Your task to perform on an android device: Open Yahoo.com Image 0: 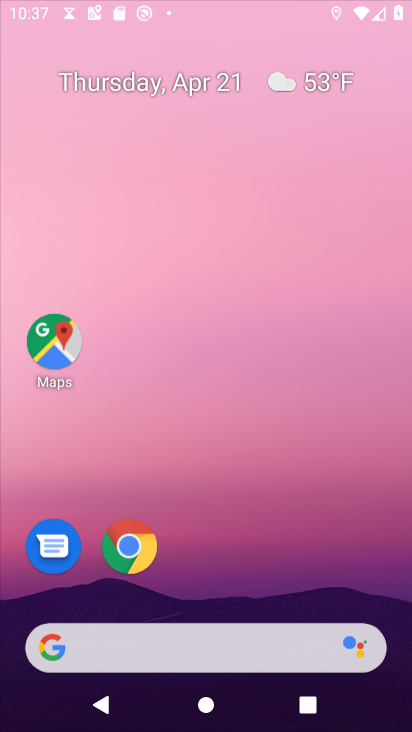
Step 0: drag from (283, 558) to (266, 224)
Your task to perform on an android device: Open Yahoo.com Image 1: 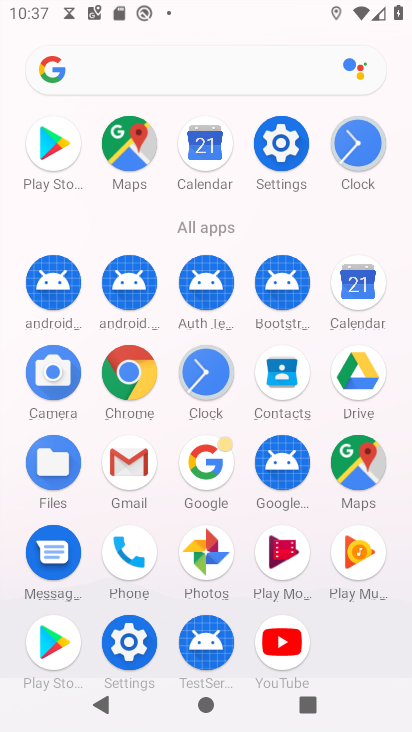
Step 1: click (124, 404)
Your task to perform on an android device: Open Yahoo.com Image 2: 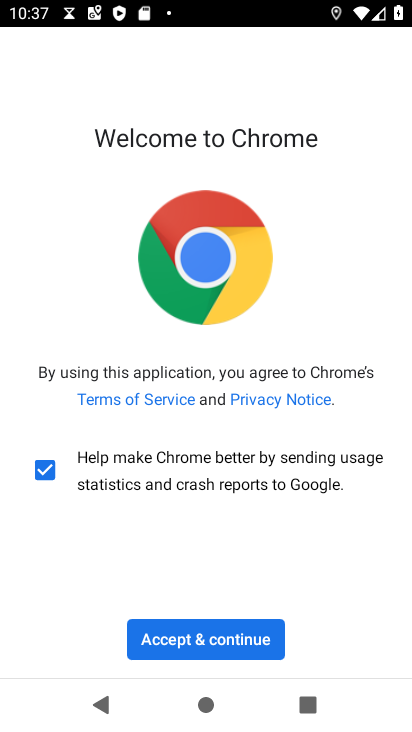
Step 2: click (220, 631)
Your task to perform on an android device: Open Yahoo.com Image 3: 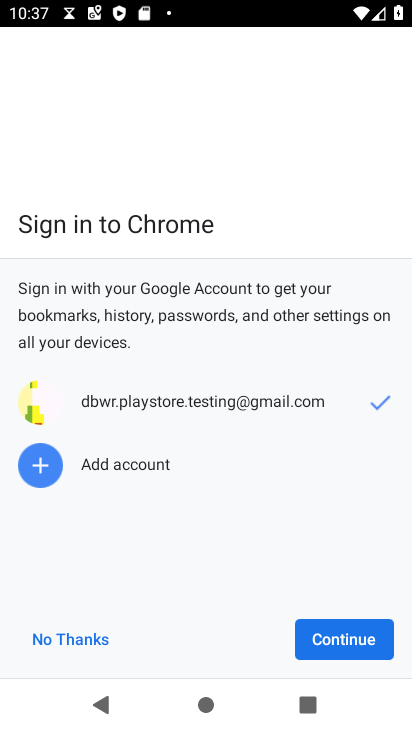
Step 3: click (340, 658)
Your task to perform on an android device: Open Yahoo.com Image 4: 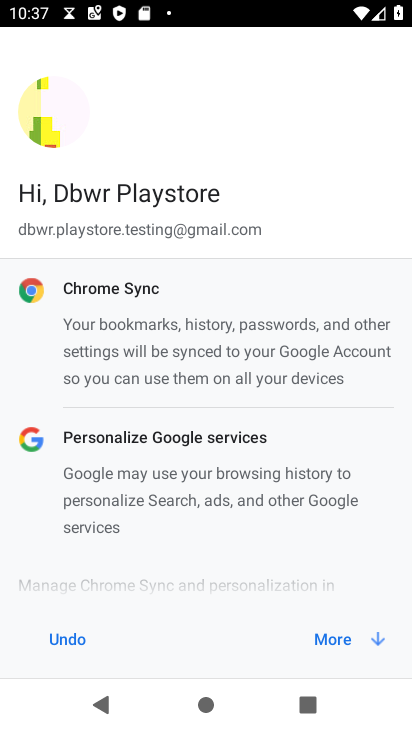
Step 4: click (331, 637)
Your task to perform on an android device: Open Yahoo.com Image 5: 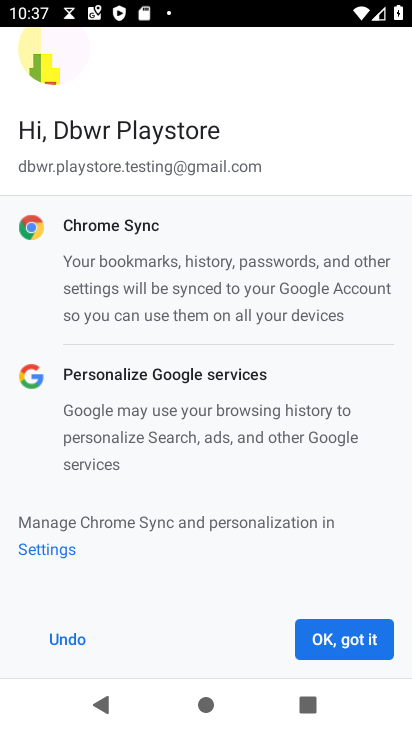
Step 5: click (337, 642)
Your task to perform on an android device: Open Yahoo.com Image 6: 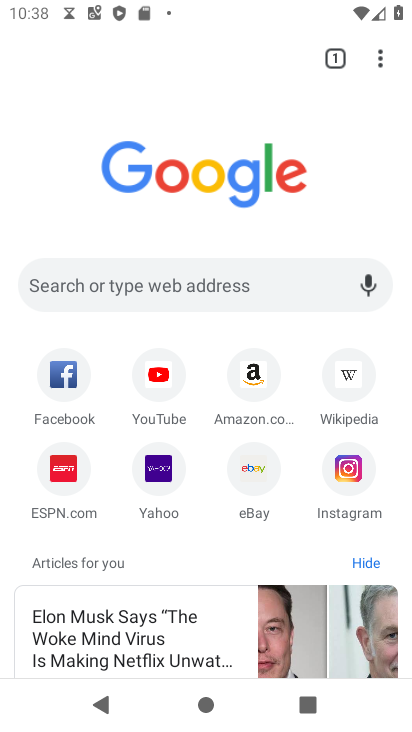
Step 6: click (207, 288)
Your task to perform on an android device: Open Yahoo.com Image 7: 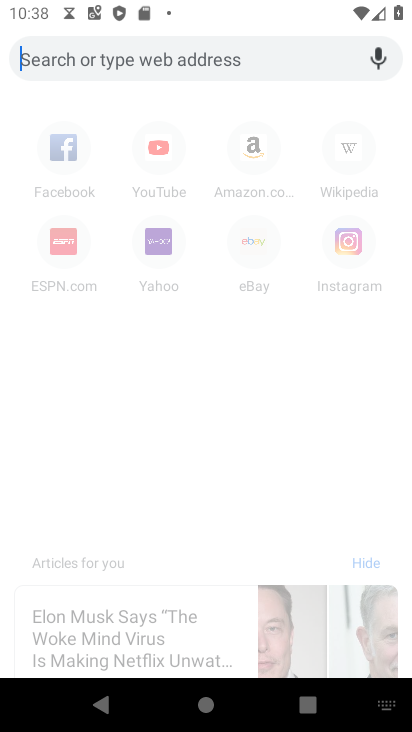
Step 7: click (162, 258)
Your task to perform on an android device: Open Yahoo.com Image 8: 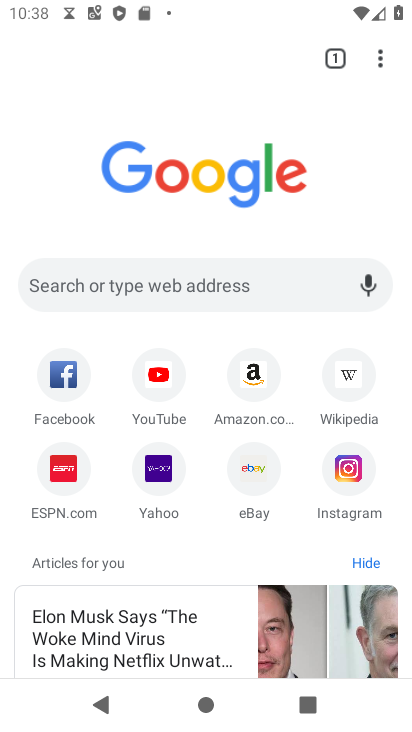
Step 8: click (169, 481)
Your task to perform on an android device: Open Yahoo.com Image 9: 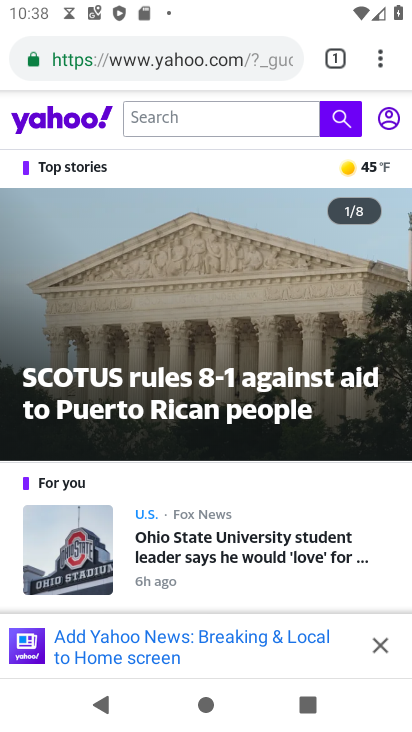
Step 9: task complete